Your task to perform on an android device: snooze an email in the gmail app Image 0: 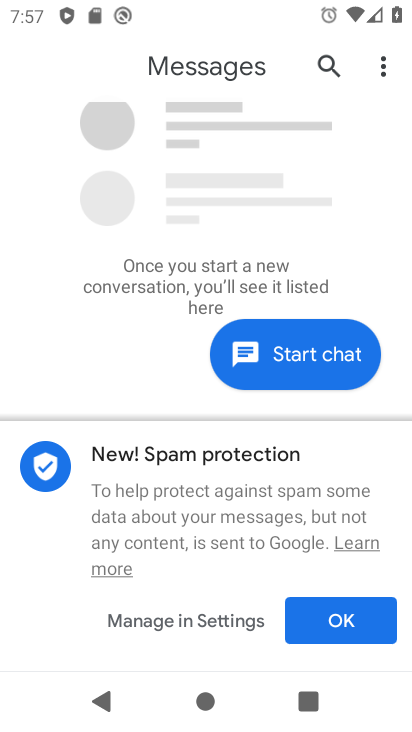
Step 0: press home button
Your task to perform on an android device: snooze an email in the gmail app Image 1: 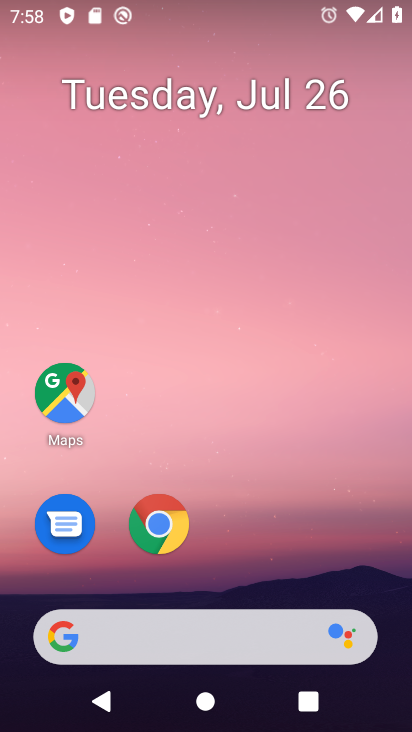
Step 1: drag from (272, 555) to (258, 123)
Your task to perform on an android device: snooze an email in the gmail app Image 2: 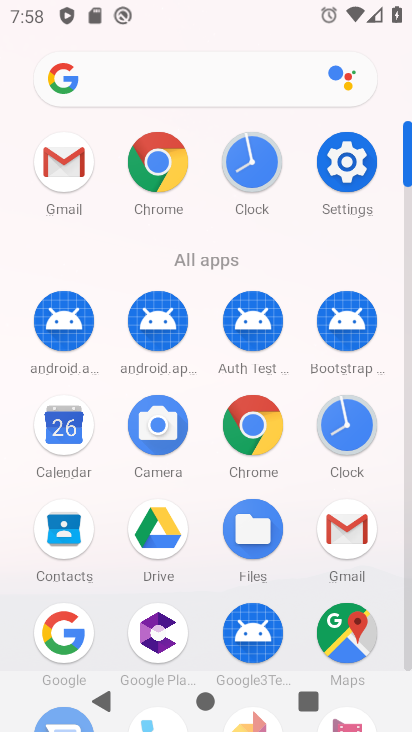
Step 2: click (59, 161)
Your task to perform on an android device: snooze an email in the gmail app Image 3: 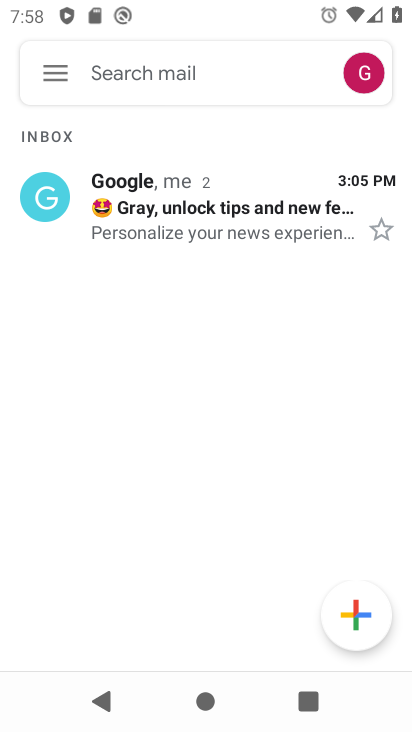
Step 3: click (206, 201)
Your task to perform on an android device: snooze an email in the gmail app Image 4: 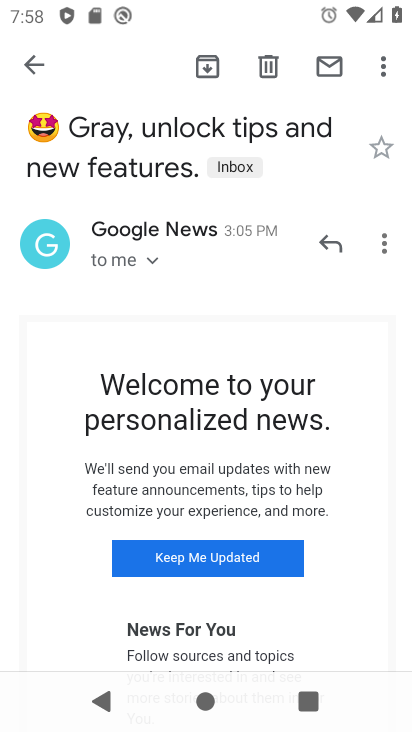
Step 4: click (381, 68)
Your task to perform on an android device: snooze an email in the gmail app Image 5: 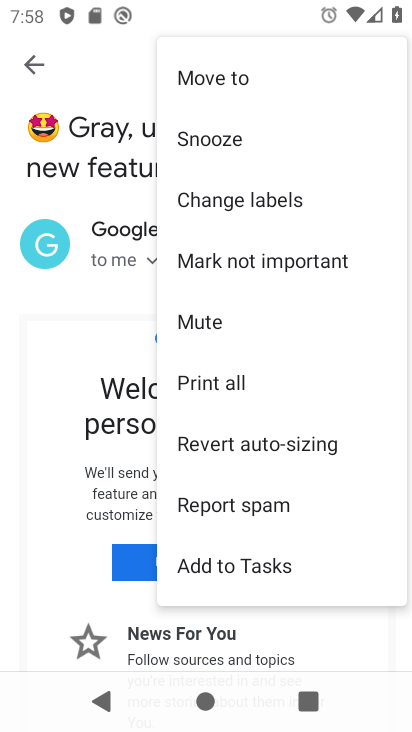
Step 5: click (240, 130)
Your task to perform on an android device: snooze an email in the gmail app Image 6: 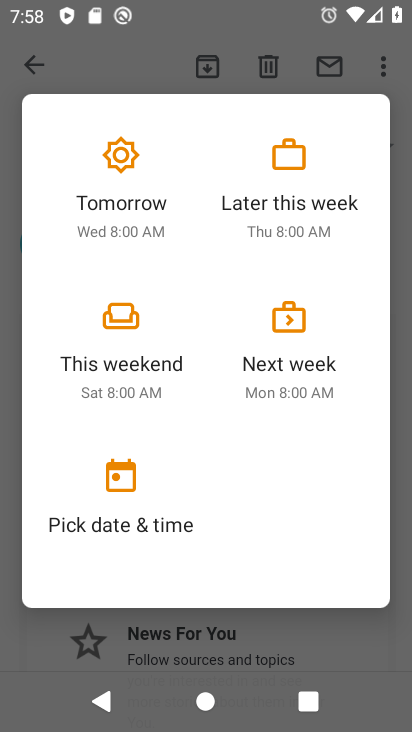
Step 6: click (154, 204)
Your task to perform on an android device: snooze an email in the gmail app Image 7: 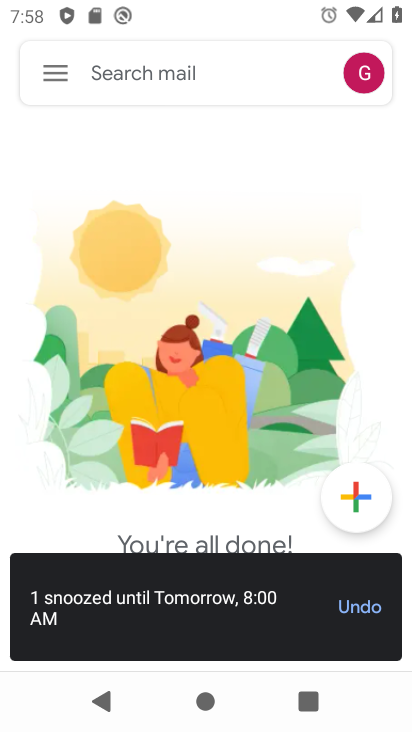
Step 7: task complete